Your task to perform on an android device: Do I have any events tomorrow? Image 0: 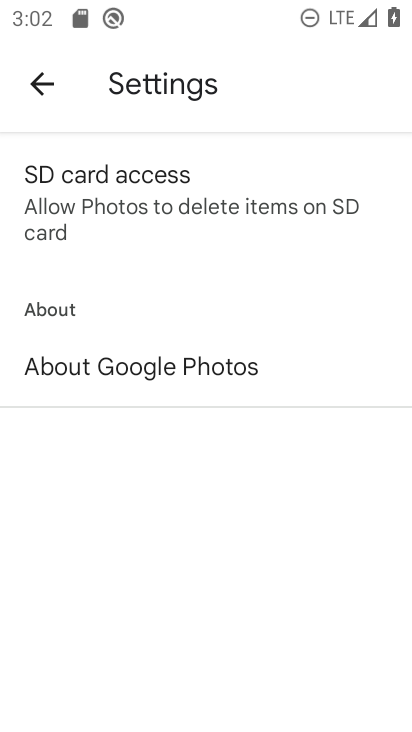
Step 0: press home button
Your task to perform on an android device: Do I have any events tomorrow? Image 1: 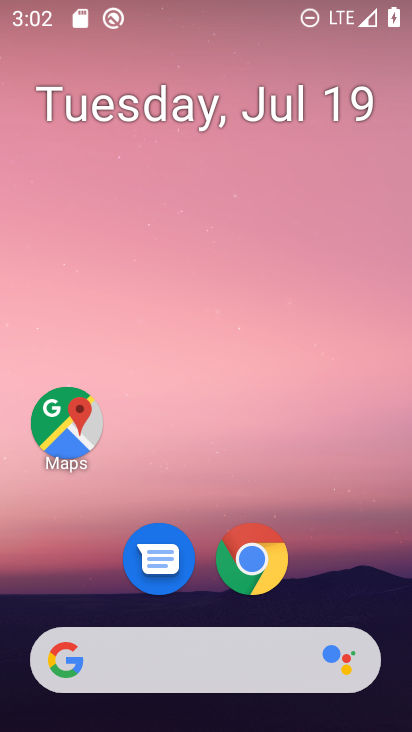
Step 1: drag from (226, 672) to (122, 62)
Your task to perform on an android device: Do I have any events tomorrow? Image 2: 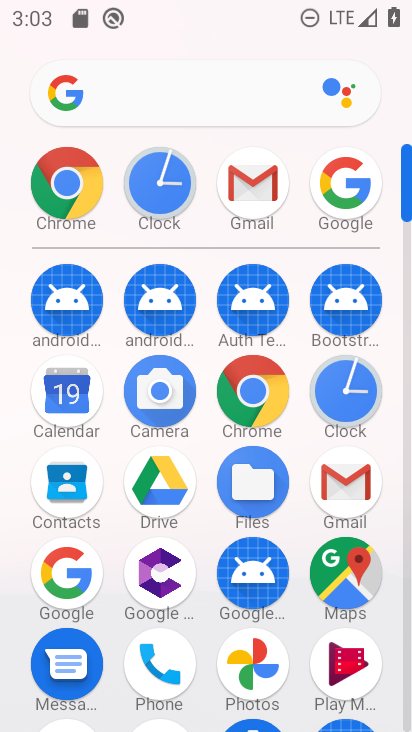
Step 2: click (83, 400)
Your task to perform on an android device: Do I have any events tomorrow? Image 3: 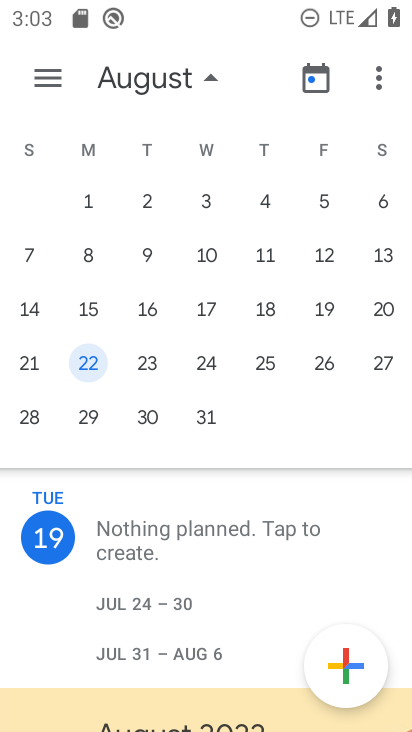
Step 3: drag from (71, 281) to (407, 319)
Your task to perform on an android device: Do I have any events tomorrow? Image 4: 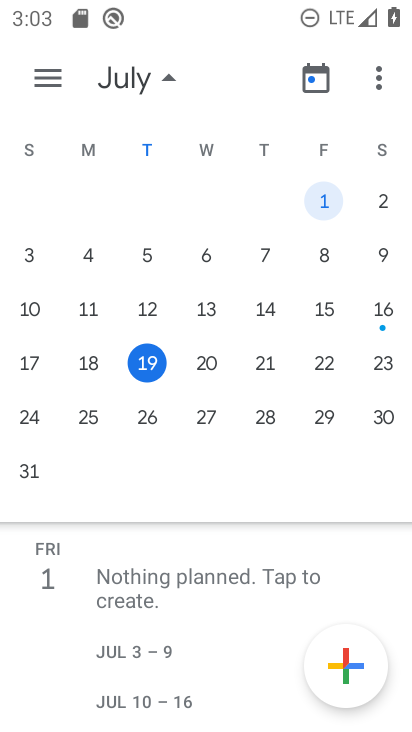
Step 4: click (198, 358)
Your task to perform on an android device: Do I have any events tomorrow? Image 5: 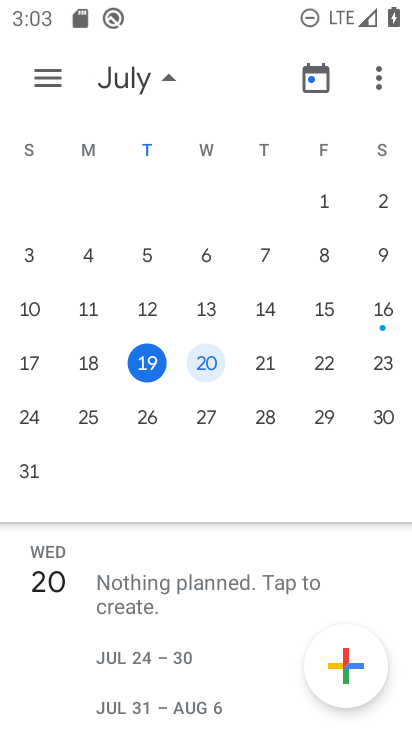
Step 5: task complete